Your task to perform on an android device: Set the phone to "Do not disturb". Image 0: 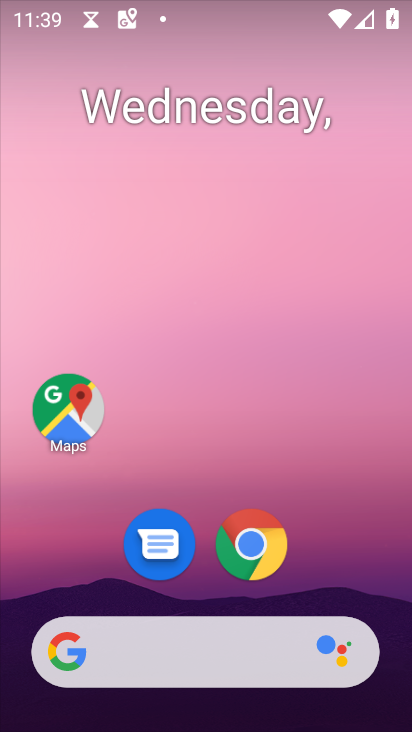
Step 0: drag from (237, 672) to (200, 159)
Your task to perform on an android device: Set the phone to "Do not disturb". Image 1: 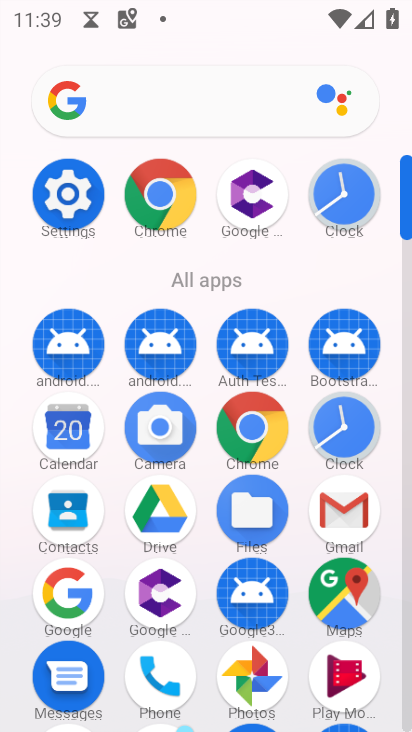
Step 1: click (51, 205)
Your task to perform on an android device: Set the phone to "Do not disturb". Image 2: 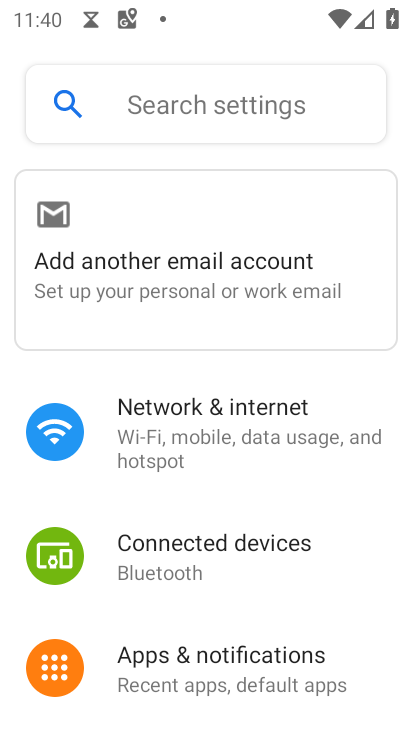
Step 2: click (129, 124)
Your task to perform on an android device: Set the phone to "Do not disturb". Image 3: 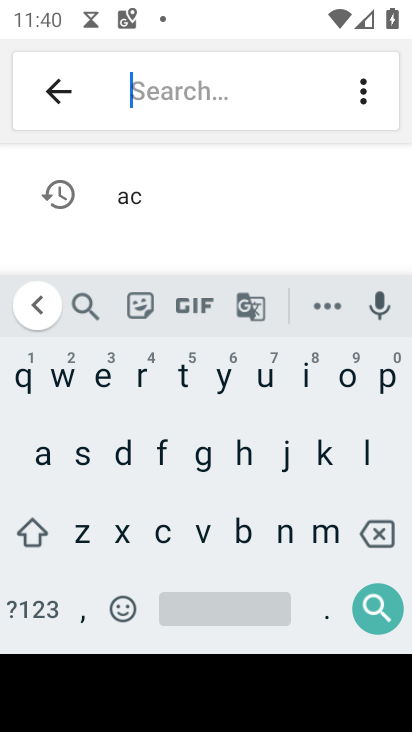
Step 3: click (125, 453)
Your task to perform on an android device: Set the phone to "Do not disturb". Image 4: 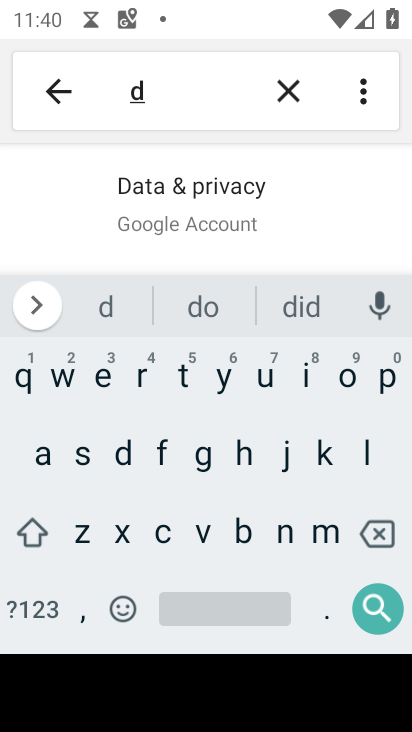
Step 4: click (276, 533)
Your task to perform on an android device: Set the phone to "Do not disturb". Image 5: 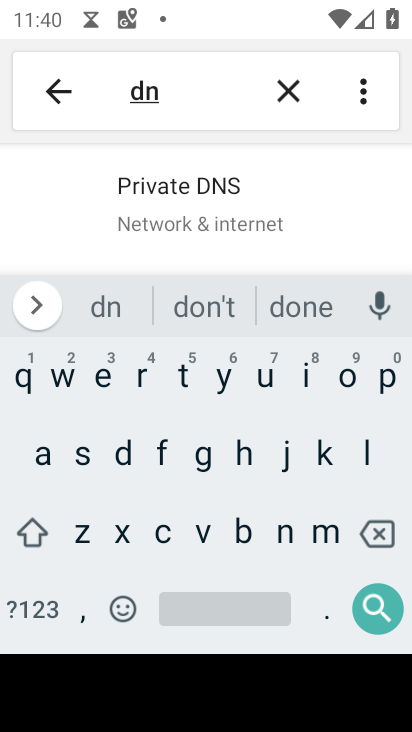
Step 5: click (127, 451)
Your task to perform on an android device: Set the phone to "Do not disturb". Image 6: 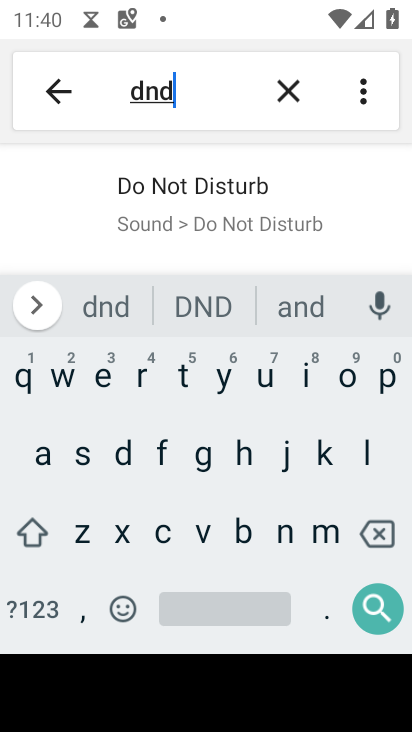
Step 6: click (232, 208)
Your task to perform on an android device: Set the phone to "Do not disturb". Image 7: 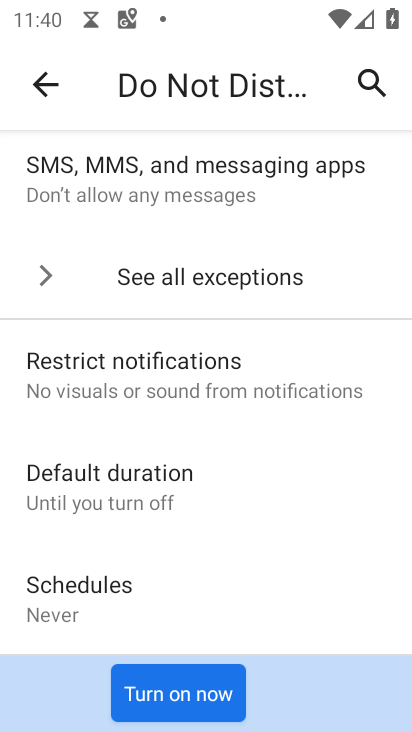
Step 7: click (170, 687)
Your task to perform on an android device: Set the phone to "Do not disturb". Image 8: 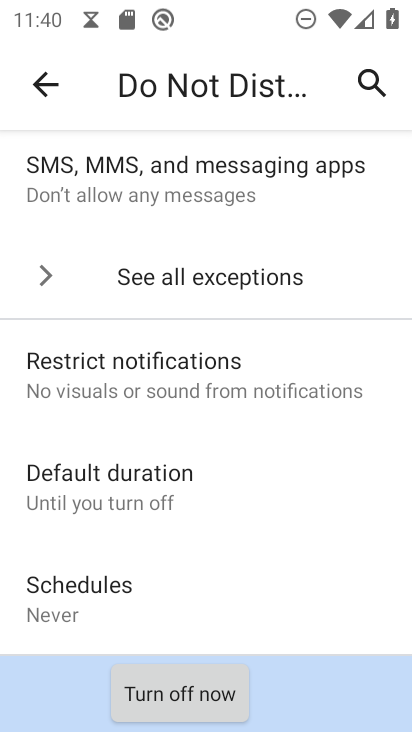
Step 8: task complete